Your task to perform on an android device: visit the assistant section in the google photos Image 0: 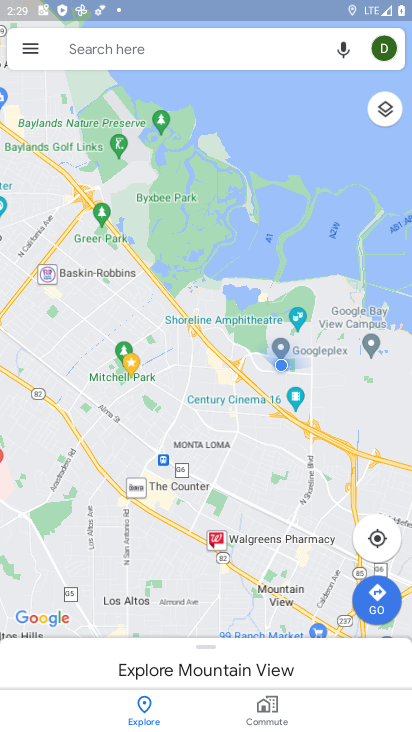
Step 0: press home button
Your task to perform on an android device: visit the assistant section in the google photos Image 1: 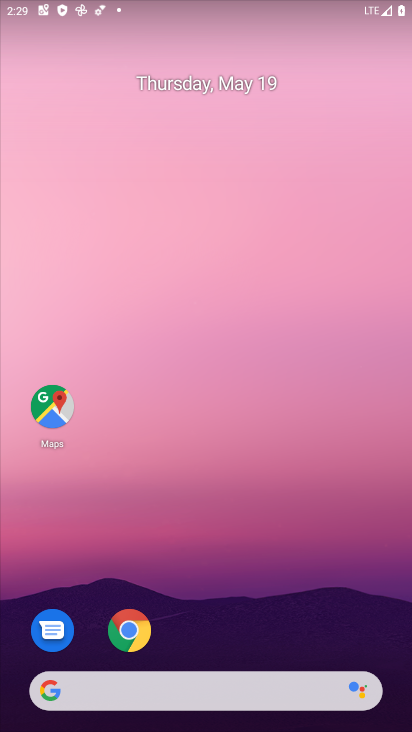
Step 1: drag from (324, 628) to (352, 5)
Your task to perform on an android device: visit the assistant section in the google photos Image 2: 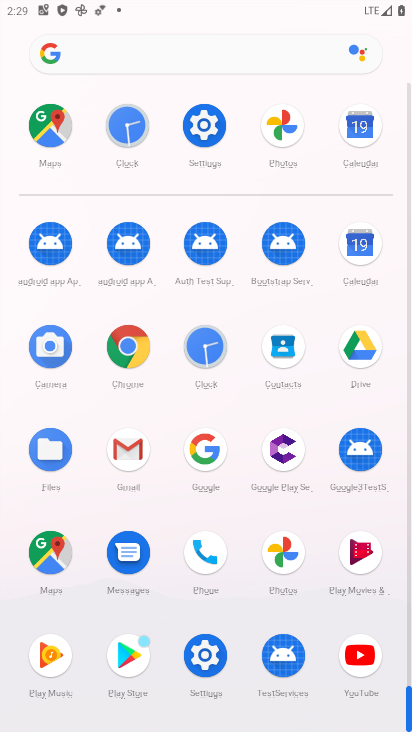
Step 2: click (283, 548)
Your task to perform on an android device: visit the assistant section in the google photos Image 3: 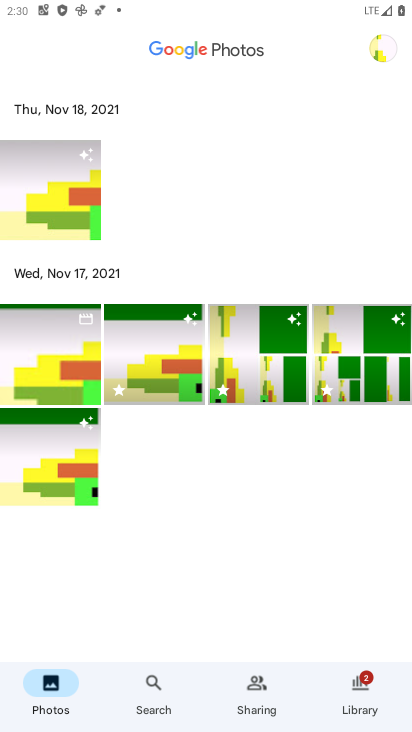
Step 3: click (365, 679)
Your task to perform on an android device: visit the assistant section in the google photos Image 4: 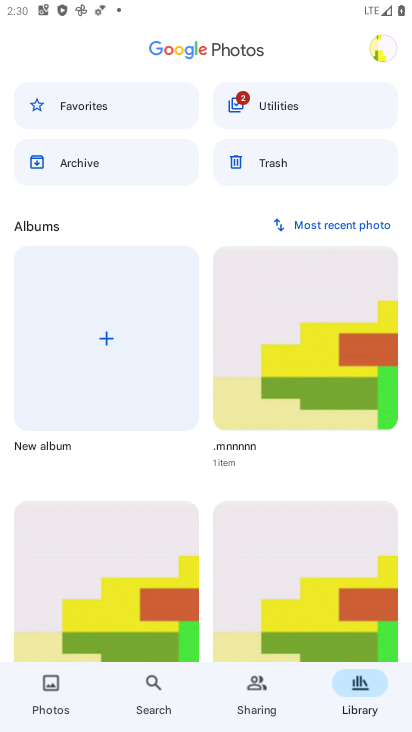
Step 4: click (281, 108)
Your task to perform on an android device: visit the assistant section in the google photos Image 5: 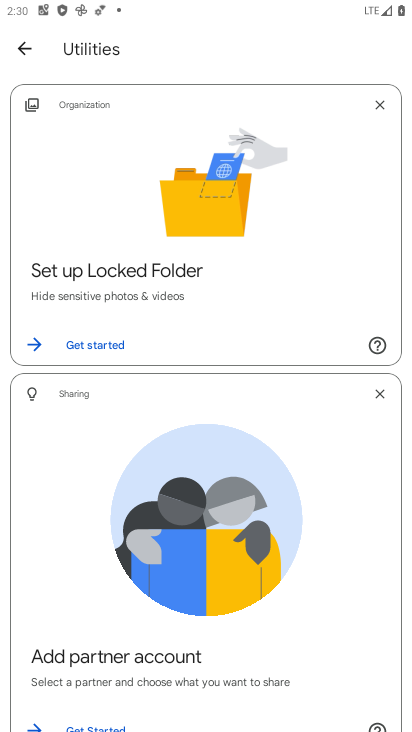
Step 5: task complete